Your task to perform on an android device: open chrome privacy settings Image 0: 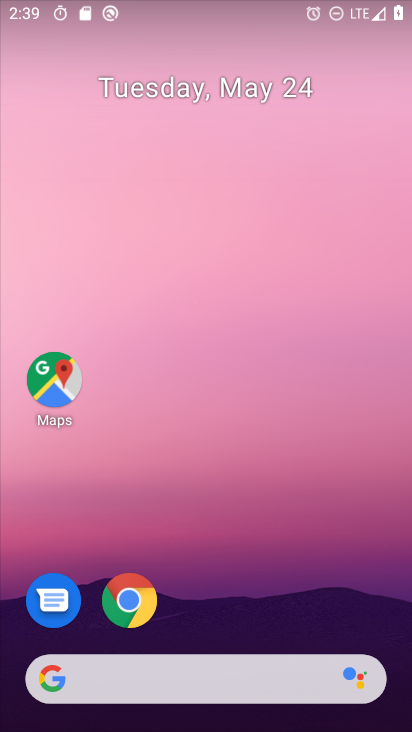
Step 0: click (129, 593)
Your task to perform on an android device: open chrome privacy settings Image 1: 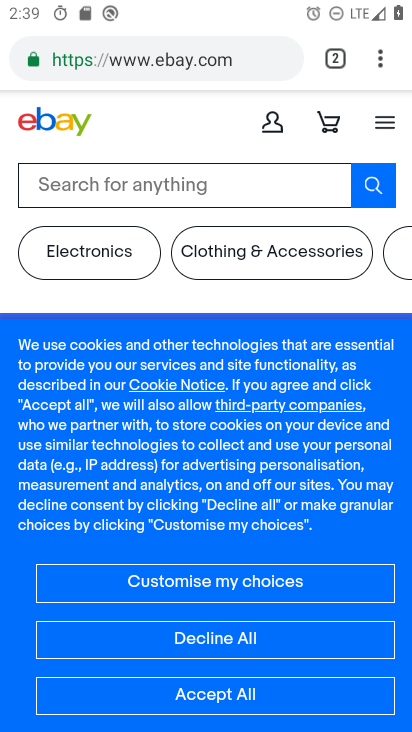
Step 1: click (377, 58)
Your task to perform on an android device: open chrome privacy settings Image 2: 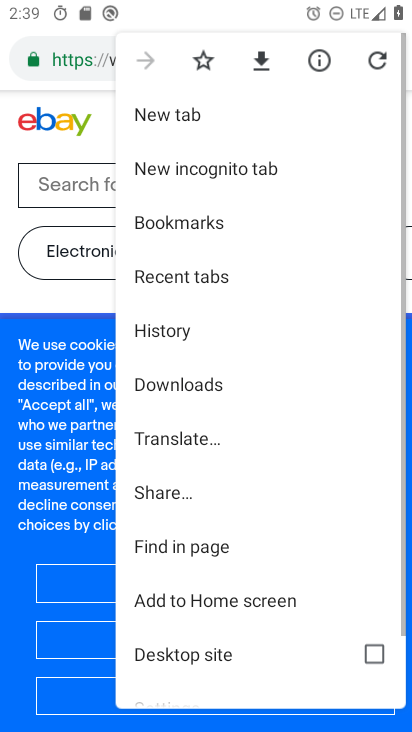
Step 2: drag from (208, 556) to (248, 226)
Your task to perform on an android device: open chrome privacy settings Image 3: 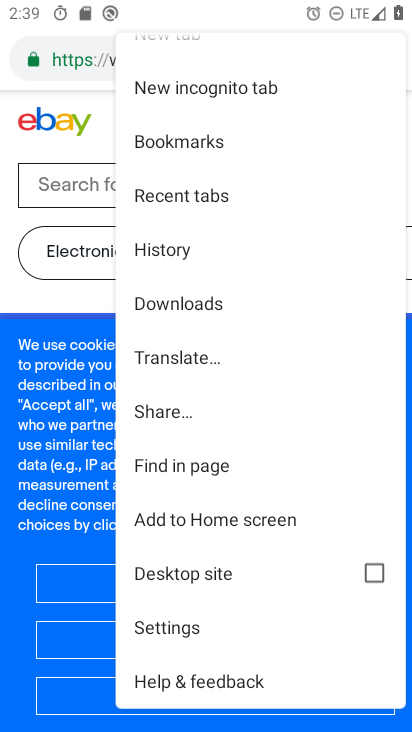
Step 3: click (173, 627)
Your task to perform on an android device: open chrome privacy settings Image 4: 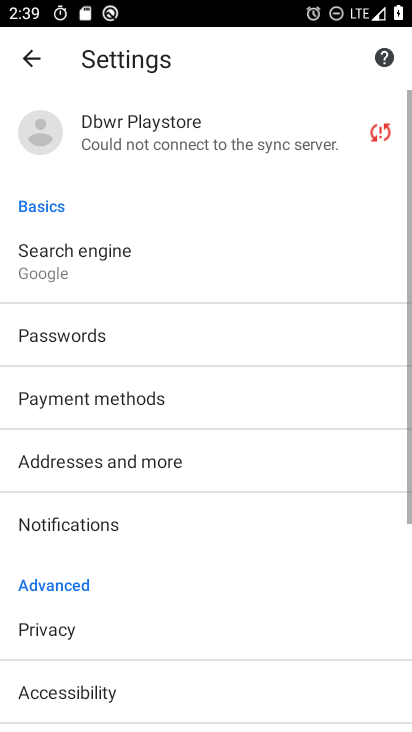
Step 4: drag from (174, 578) to (238, 189)
Your task to perform on an android device: open chrome privacy settings Image 5: 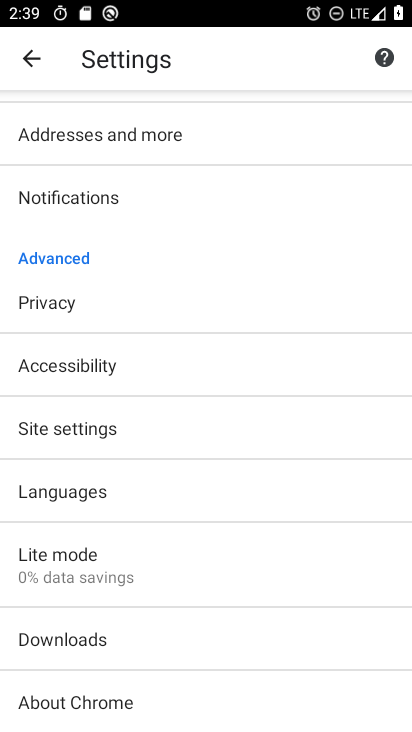
Step 5: click (83, 307)
Your task to perform on an android device: open chrome privacy settings Image 6: 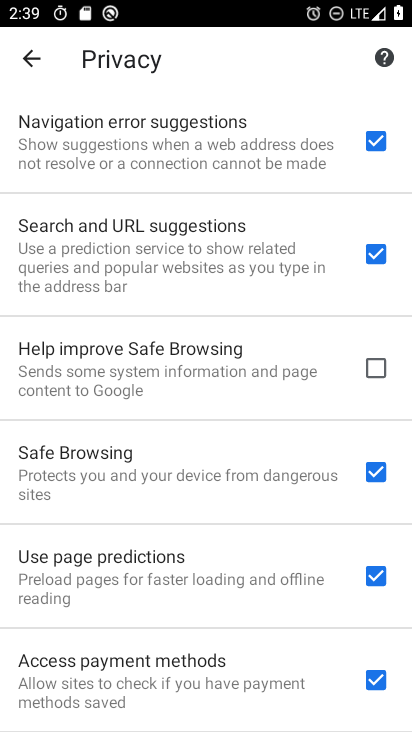
Step 6: task complete